Your task to perform on an android device: delete the emails in spam in the gmail app Image 0: 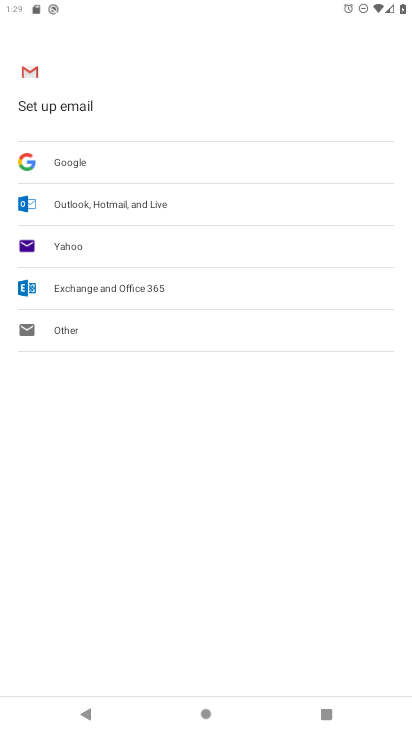
Step 0: press home button
Your task to perform on an android device: delete the emails in spam in the gmail app Image 1: 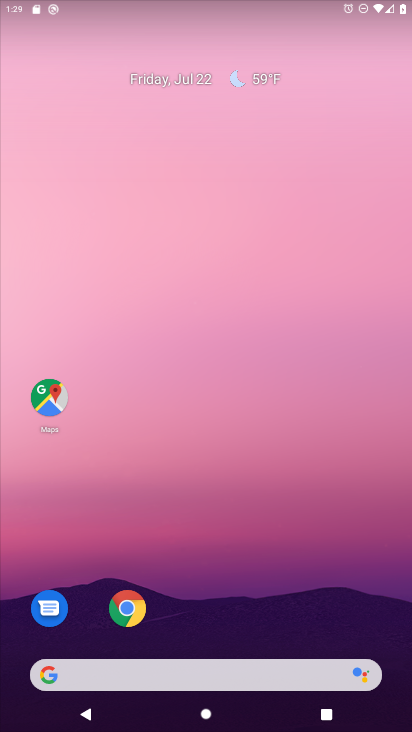
Step 1: drag from (322, 622) to (128, 18)
Your task to perform on an android device: delete the emails in spam in the gmail app Image 2: 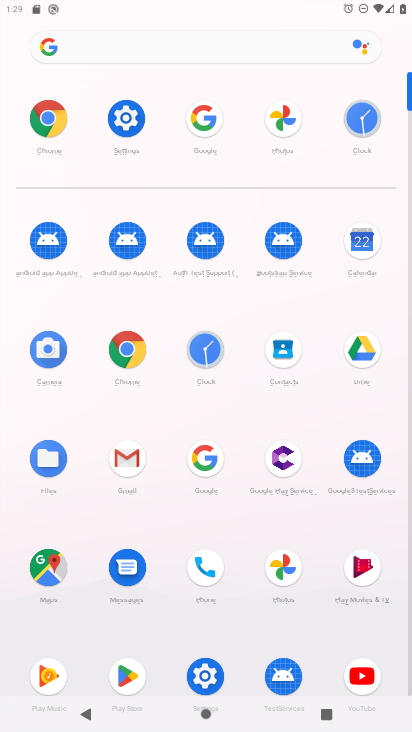
Step 2: click (123, 445)
Your task to perform on an android device: delete the emails in spam in the gmail app Image 3: 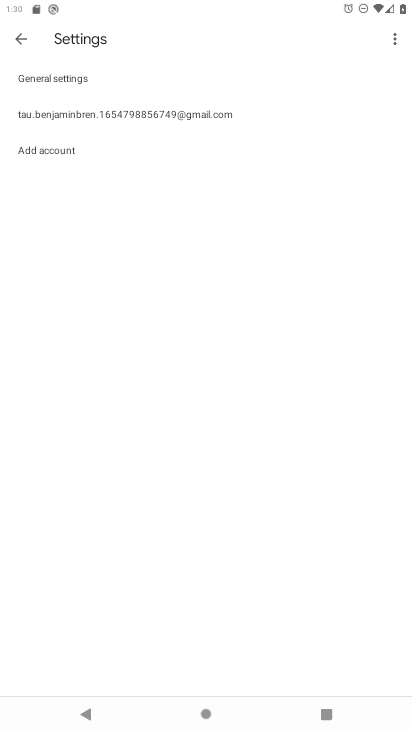
Step 3: task complete